Your task to perform on an android device: open the mobile data screen to see how much data has been used Image 0: 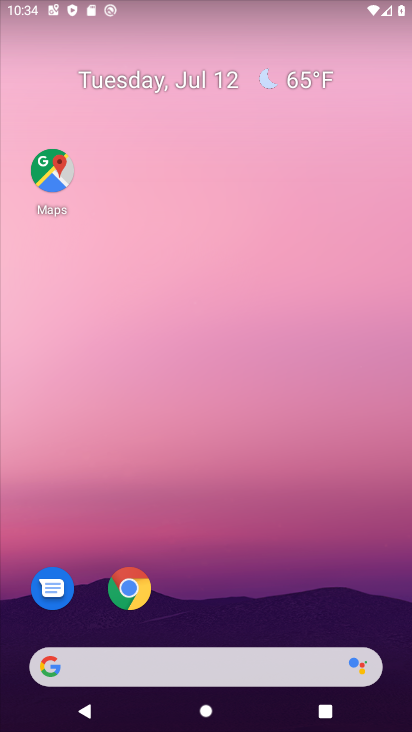
Step 0: drag from (101, 434) to (196, 170)
Your task to perform on an android device: open the mobile data screen to see how much data has been used Image 1: 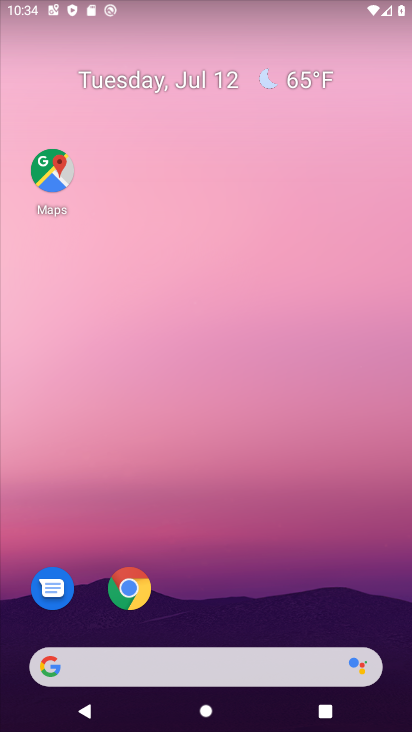
Step 1: drag from (99, 617) to (302, 99)
Your task to perform on an android device: open the mobile data screen to see how much data has been used Image 2: 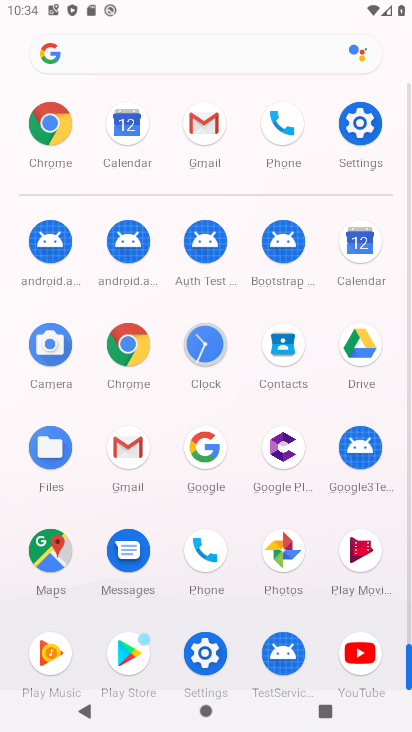
Step 2: click (198, 659)
Your task to perform on an android device: open the mobile data screen to see how much data has been used Image 3: 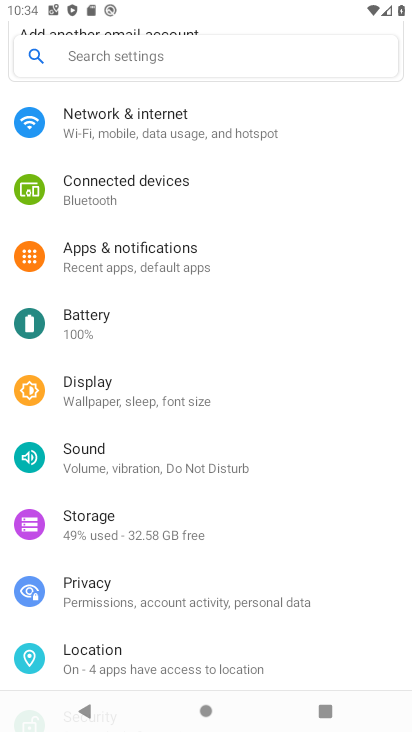
Step 3: click (122, 117)
Your task to perform on an android device: open the mobile data screen to see how much data has been used Image 4: 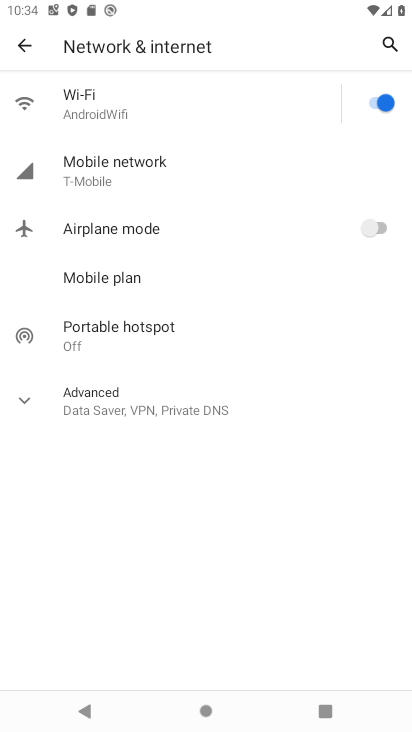
Step 4: click (133, 165)
Your task to perform on an android device: open the mobile data screen to see how much data has been used Image 5: 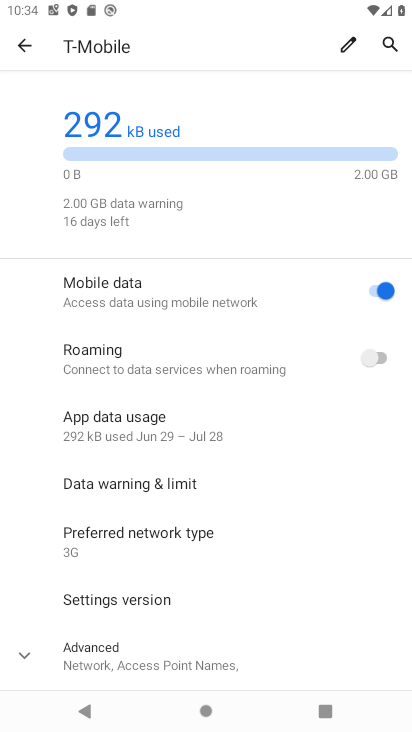
Step 5: click (90, 171)
Your task to perform on an android device: open the mobile data screen to see how much data has been used Image 6: 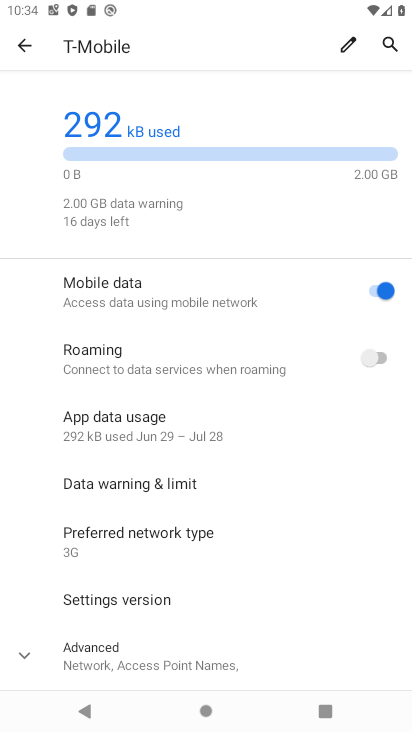
Step 6: task complete